Your task to perform on an android device: Go to Maps Image 0: 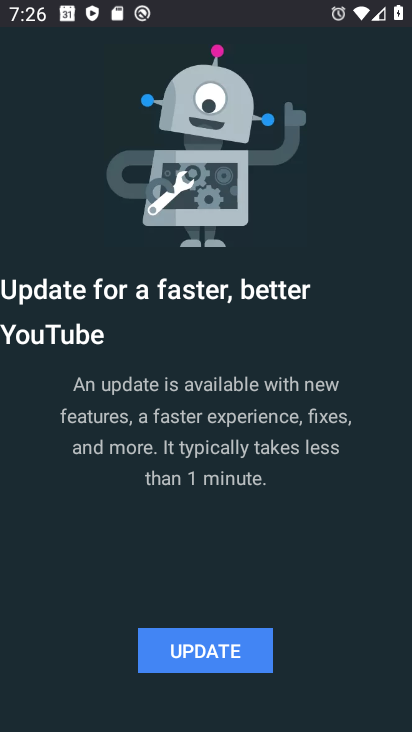
Step 0: press back button
Your task to perform on an android device: Go to Maps Image 1: 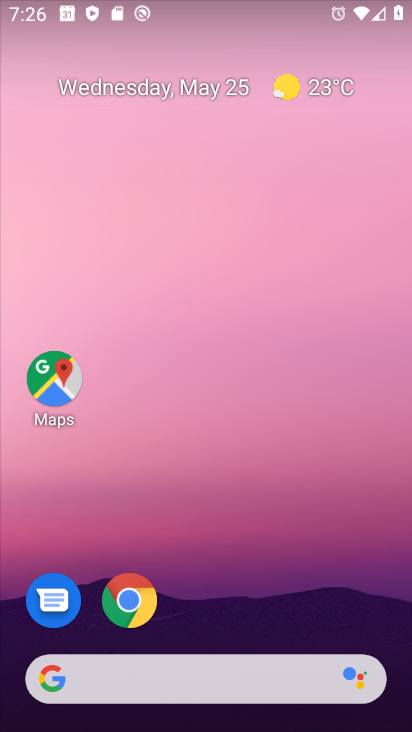
Step 1: click (54, 377)
Your task to perform on an android device: Go to Maps Image 2: 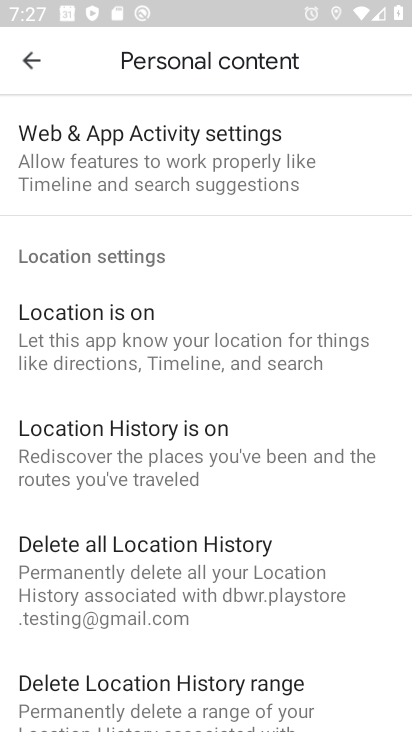
Step 2: click (30, 56)
Your task to perform on an android device: Go to Maps Image 3: 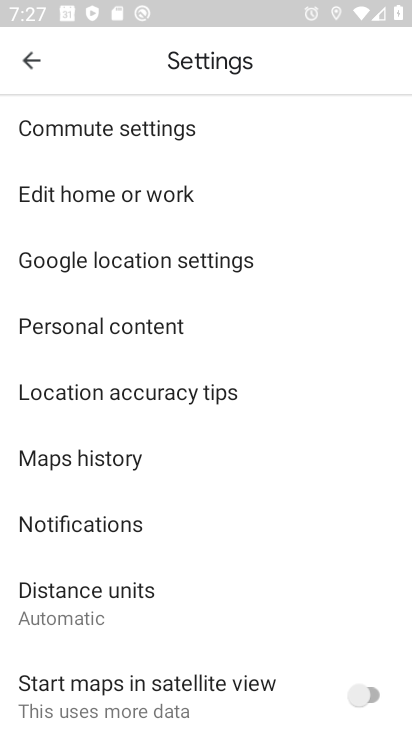
Step 3: click (30, 56)
Your task to perform on an android device: Go to Maps Image 4: 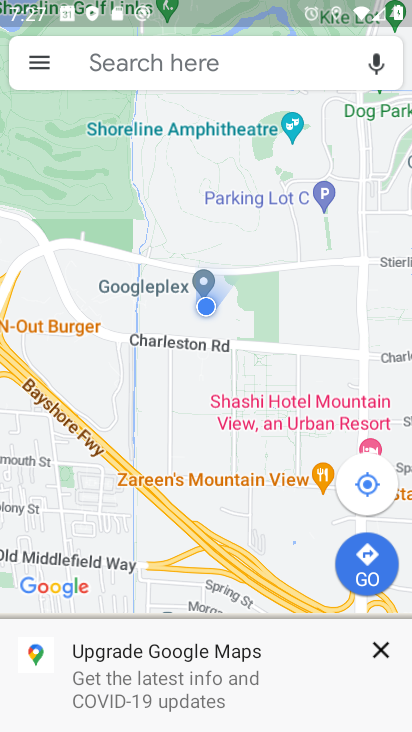
Step 4: task complete